Your task to perform on an android device: Open Google Maps Image 0: 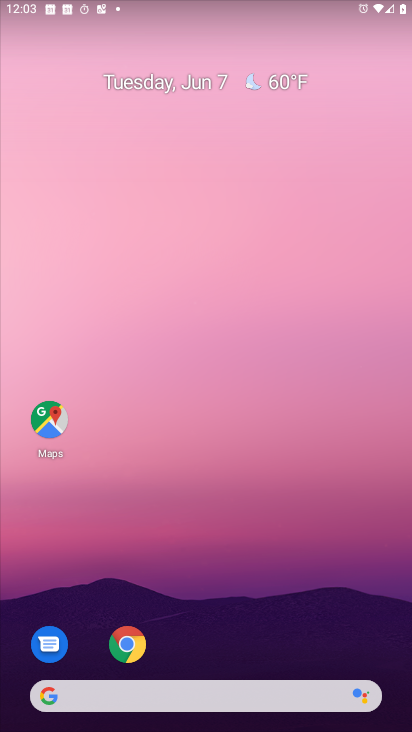
Step 0: click (63, 418)
Your task to perform on an android device: Open Google Maps Image 1: 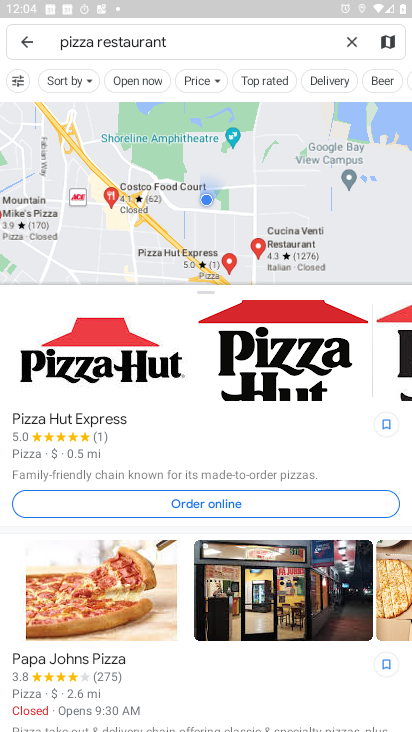
Step 1: task complete